Your task to perform on an android device: add a contact in the contacts app Image 0: 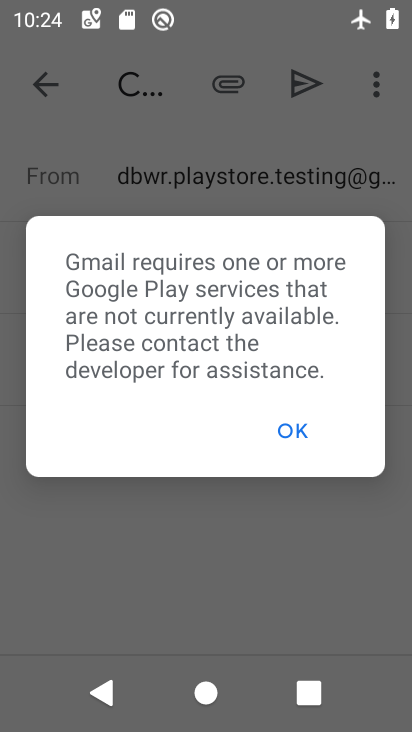
Step 0: press home button
Your task to perform on an android device: add a contact in the contacts app Image 1: 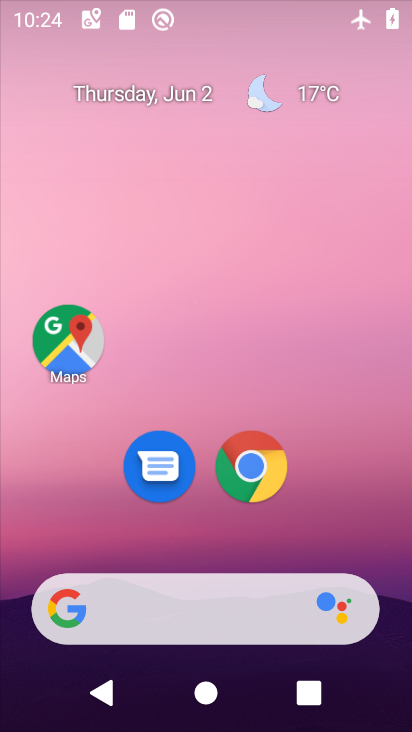
Step 1: drag from (239, 568) to (240, 175)
Your task to perform on an android device: add a contact in the contacts app Image 2: 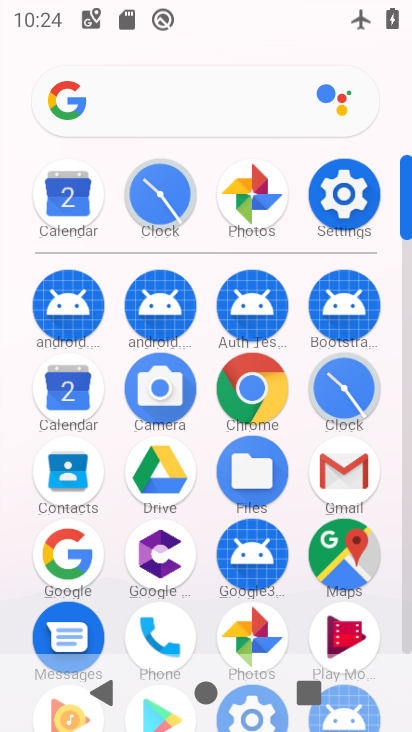
Step 2: click (157, 629)
Your task to perform on an android device: add a contact in the contacts app Image 3: 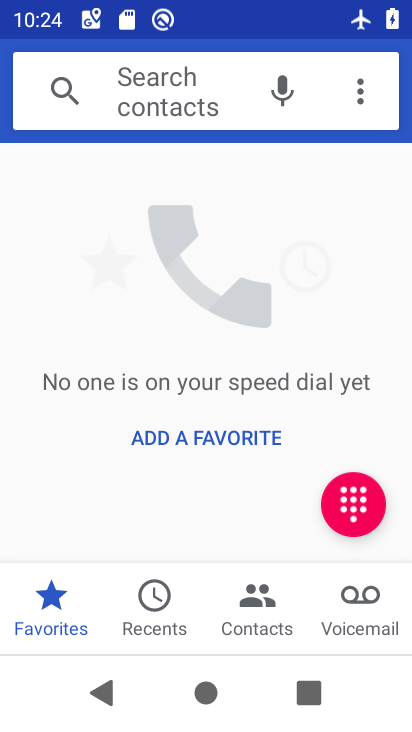
Step 3: click (229, 438)
Your task to perform on an android device: add a contact in the contacts app Image 4: 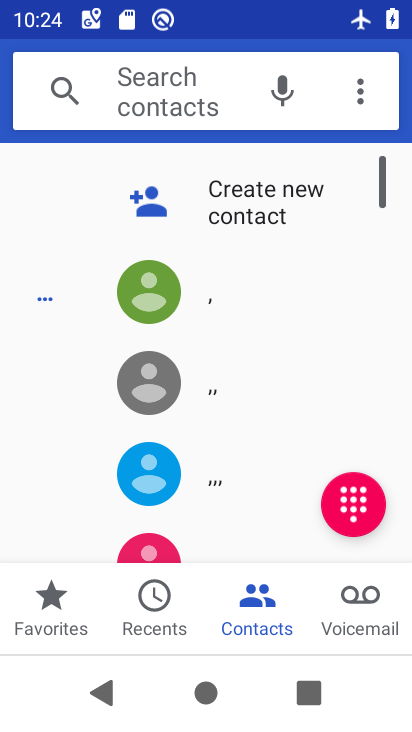
Step 4: click (215, 199)
Your task to perform on an android device: add a contact in the contacts app Image 5: 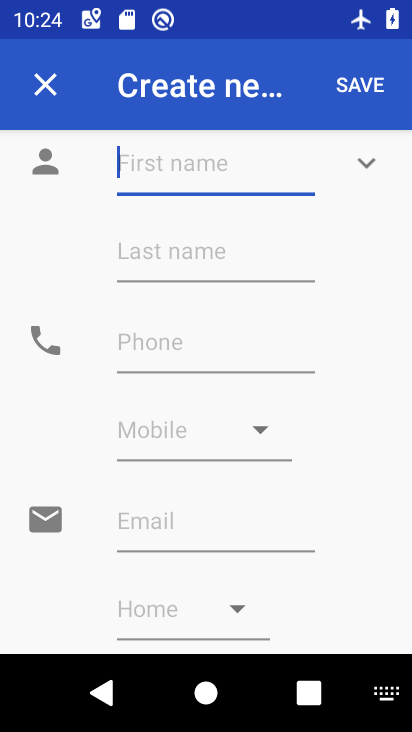
Step 5: type "xcvvvvvvvvvvv"
Your task to perform on an android device: add a contact in the contacts app Image 6: 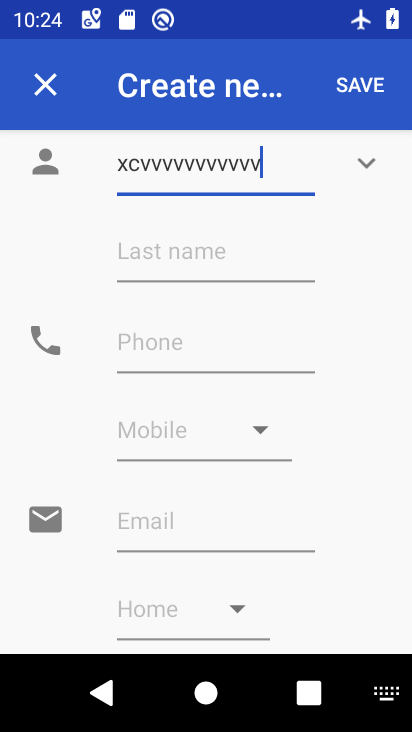
Step 6: click (176, 347)
Your task to perform on an android device: add a contact in the contacts app Image 7: 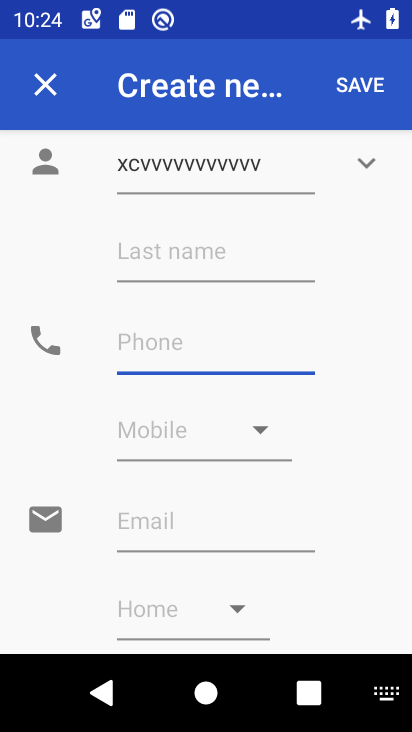
Step 7: type "234567"
Your task to perform on an android device: add a contact in the contacts app Image 8: 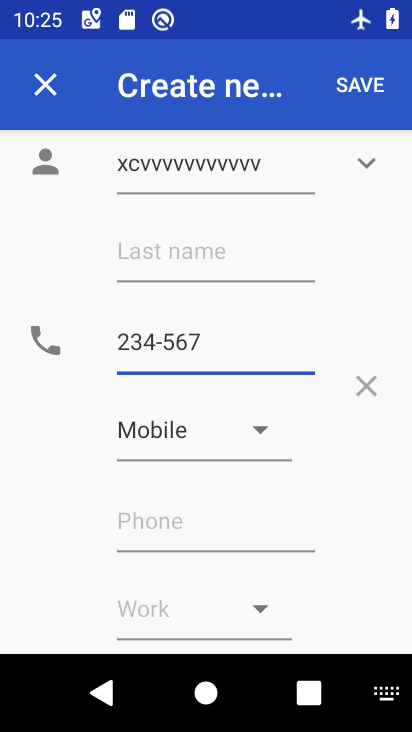
Step 8: click (347, 96)
Your task to perform on an android device: add a contact in the contacts app Image 9: 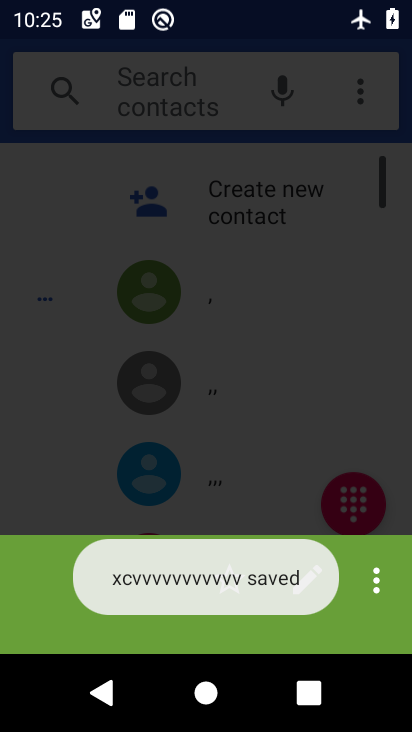
Step 9: task complete